Your task to perform on an android device: turn off sleep mode Image 0: 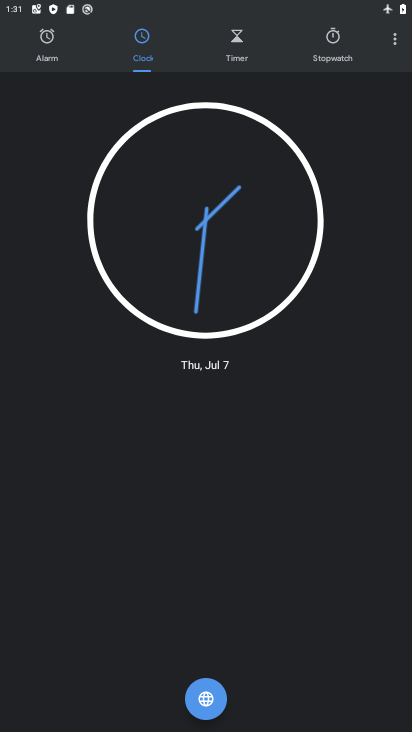
Step 0: press back button
Your task to perform on an android device: turn off sleep mode Image 1: 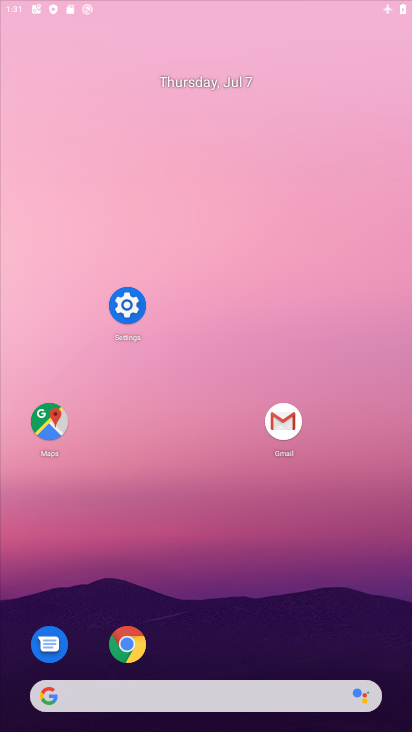
Step 1: press home button
Your task to perform on an android device: turn off sleep mode Image 2: 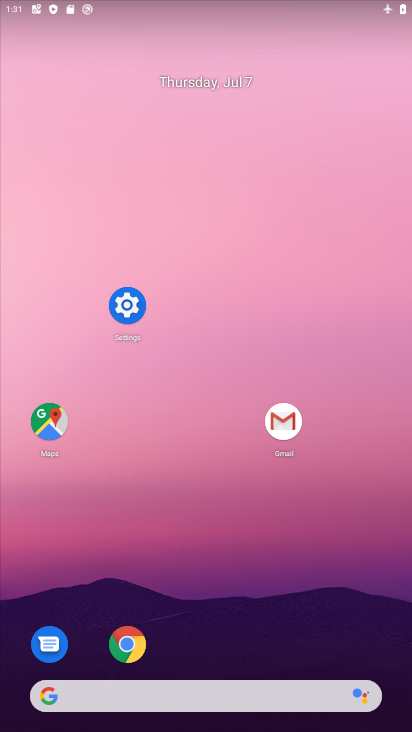
Step 2: click (122, 321)
Your task to perform on an android device: turn off sleep mode Image 3: 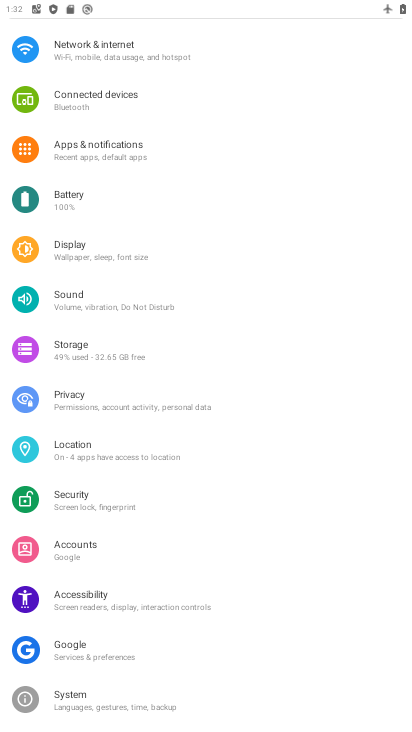
Step 3: click (63, 256)
Your task to perform on an android device: turn off sleep mode Image 4: 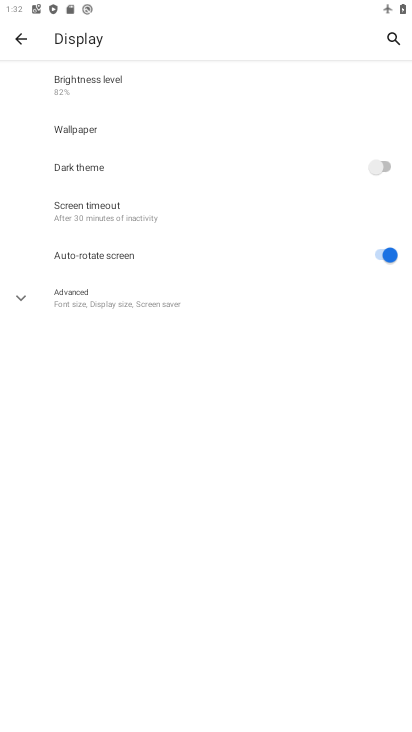
Step 4: click (77, 208)
Your task to perform on an android device: turn off sleep mode Image 5: 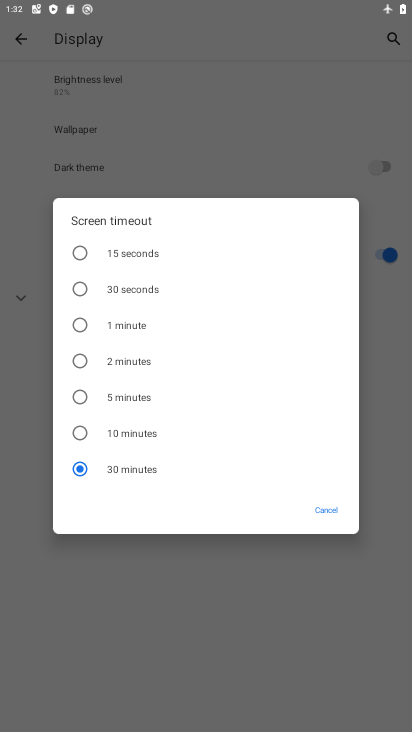
Step 5: task complete